Your task to perform on an android device: Open network settings Image 0: 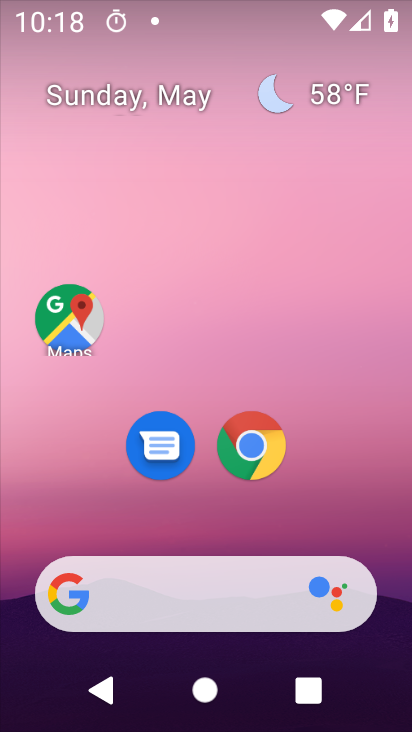
Step 0: drag from (329, 440) to (245, 1)
Your task to perform on an android device: Open network settings Image 1: 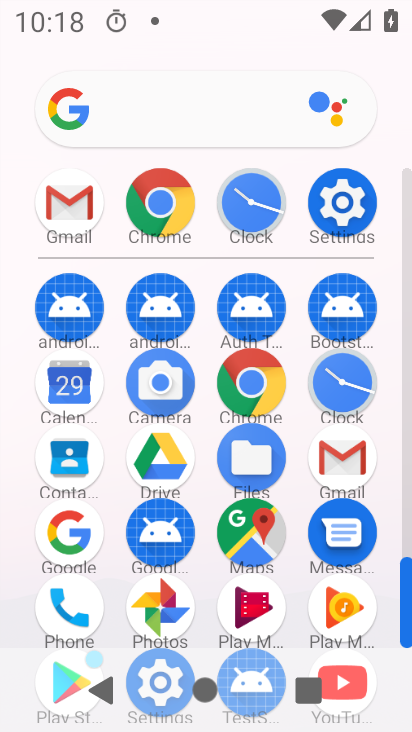
Step 1: click (18, 217)
Your task to perform on an android device: Open network settings Image 2: 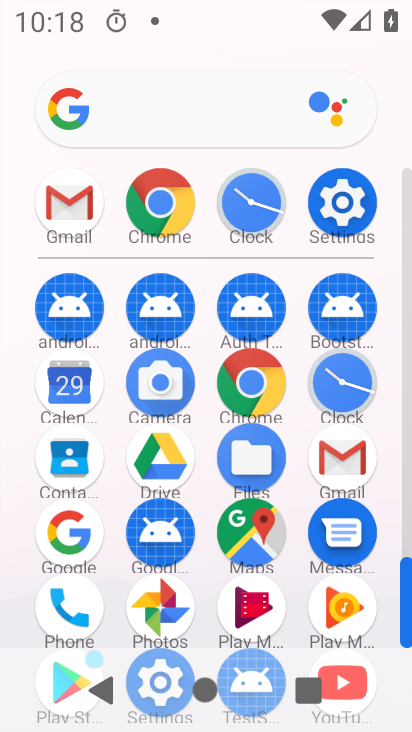
Step 2: drag from (4, 546) to (10, 263)
Your task to perform on an android device: Open network settings Image 3: 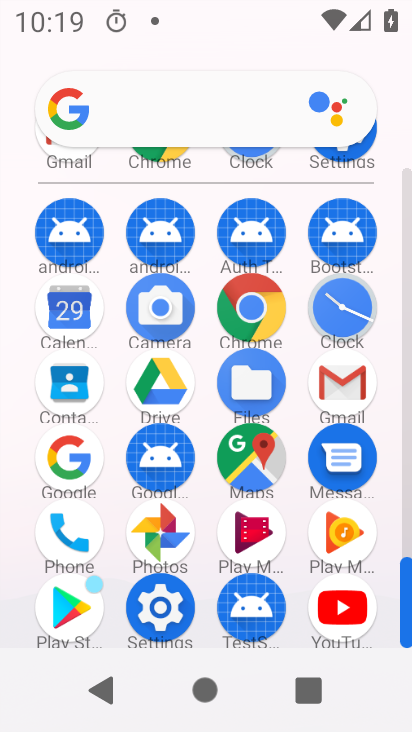
Step 3: click (159, 609)
Your task to perform on an android device: Open network settings Image 4: 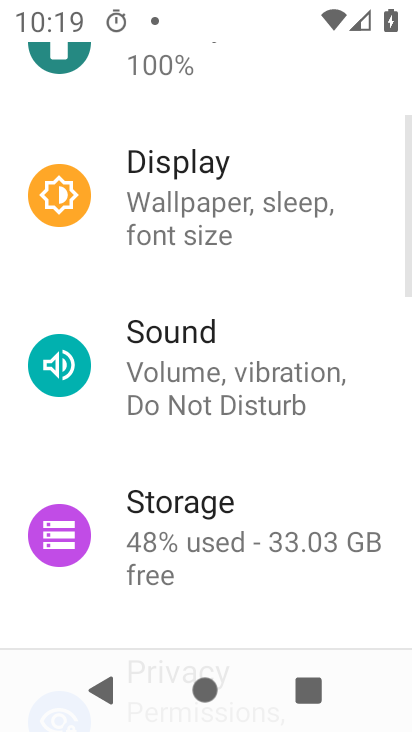
Step 4: drag from (266, 175) to (296, 597)
Your task to perform on an android device: Open network settings Image 5: 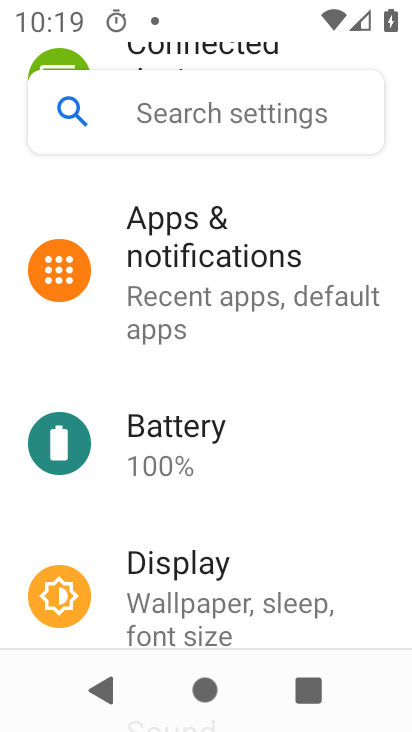
Step 5: drag from (304, 260) to (310, 560)
Your task to perform on an android device: Open network settings Image 6: 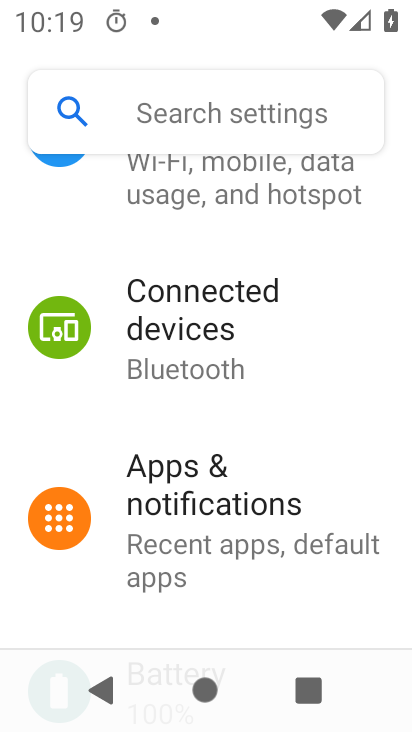
Step 6: drag from (287, 237) to (288, 553)
Your task to perform on an android device: Open network settings Image 7: 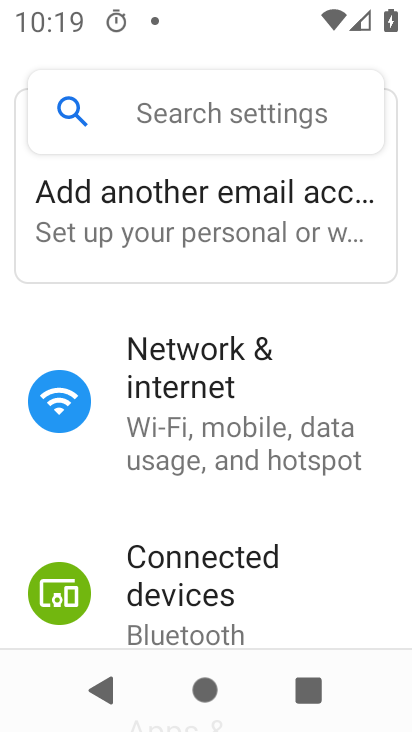
Step 7: click (266, 386)
Your task to perform on an android device: Open network settings Image 8: 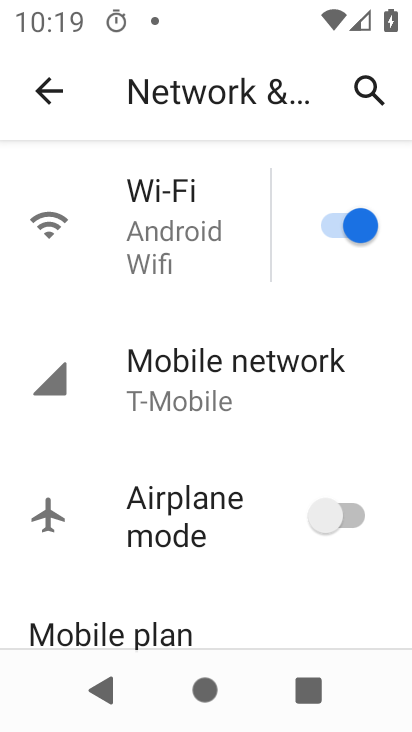
Step 8: drag from (221, 513) to (215, 209)
Your task to perform on an android device: Open network settings Image 9: 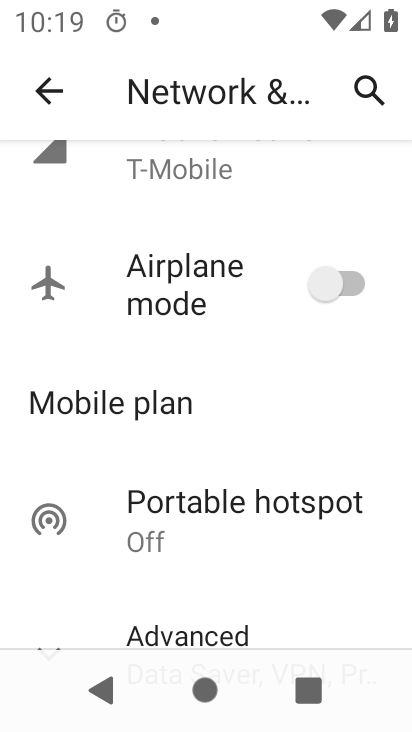
Step 9: drag from (197, 590) to (197, 204)
Your task to perform on an android device: Open network settings Image 10: 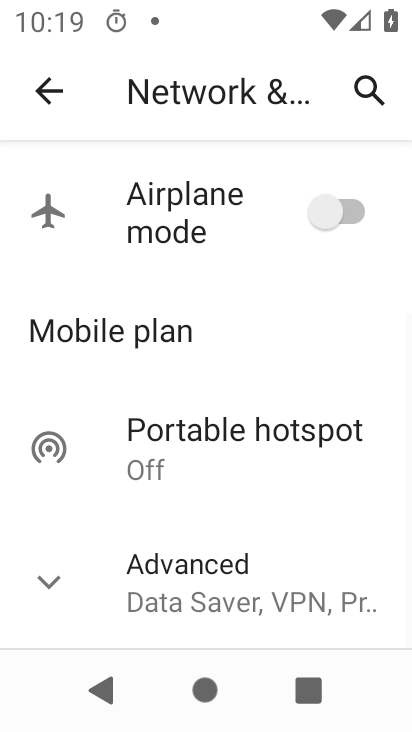
Step 10: drag from (207, 490) to (207, 276)
Your task to perform on an android device: Open network settings Image 11: 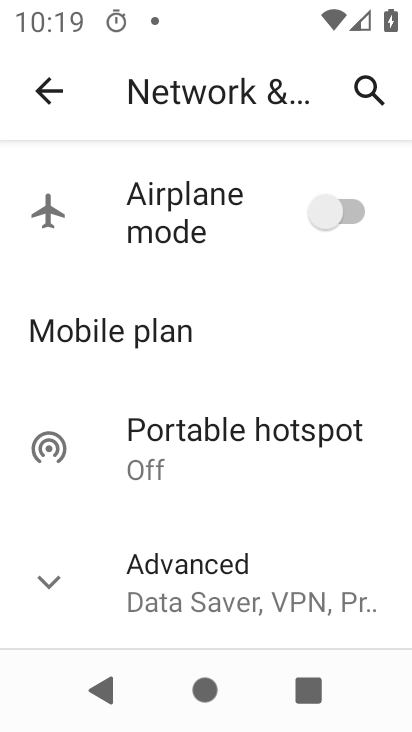
Step 11: click (35, 564)
Your task to perform on an android device: Open network settings Image 12: 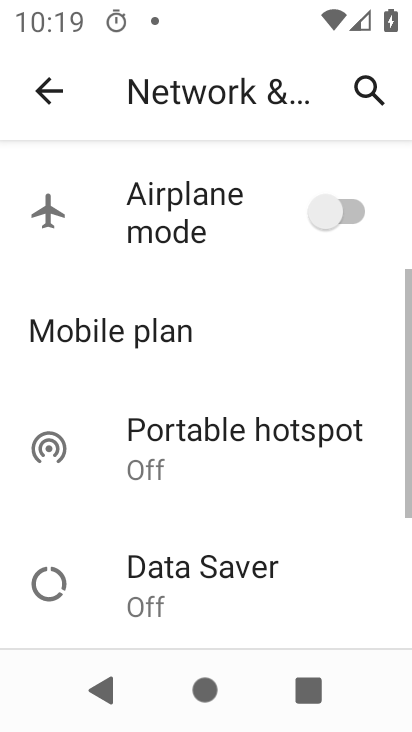
Step 12: drag from (250, 562) to (239, 152)
Your task to perform on an android device: Open network settings Image 13: 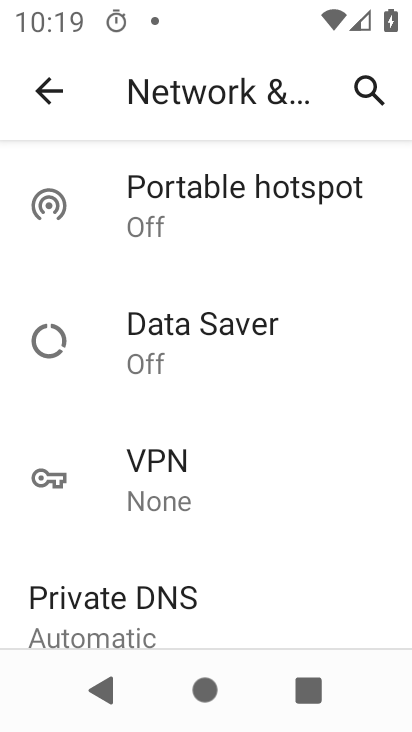
Step 13: drag from (219, 526) to (204, 182)
Your task to perform on an android device: Open network settings Image 14: 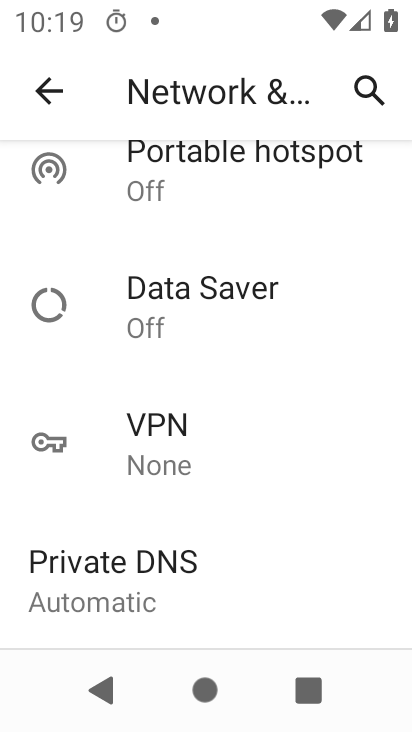
Step 14: drag from (188, 541) to (206, 218)
Your task to perform on an android device: Open network settings Image 15: 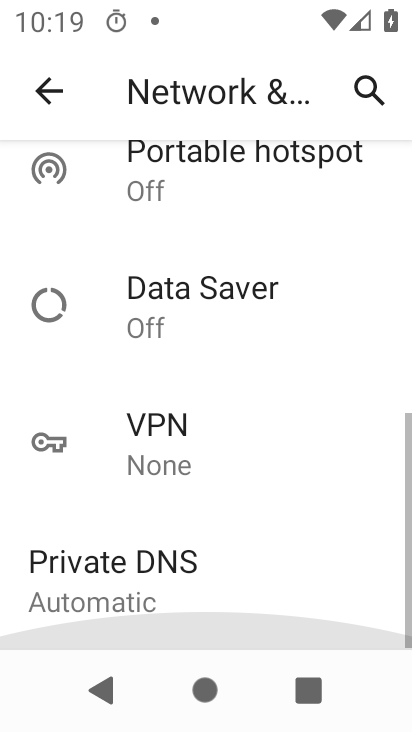
Step 15: click (208, 180)
Your task to perform on an android device: Open network settings Image 16: 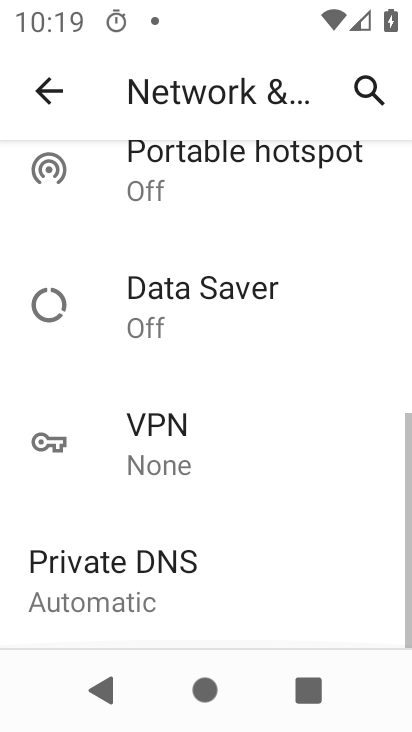
Step 16: task complete